Your task to perform on an android device: turn on javascript in the chrome app Image 0: 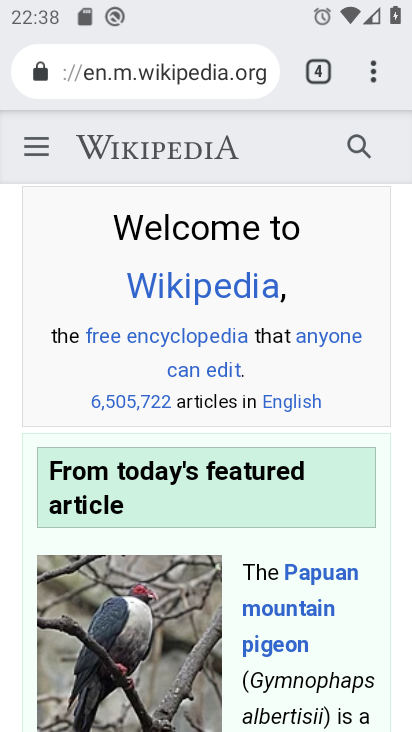
Step 0: click (198, 657)
Your task to perform on an android device: turn on javascript in the chrome app Image 1: 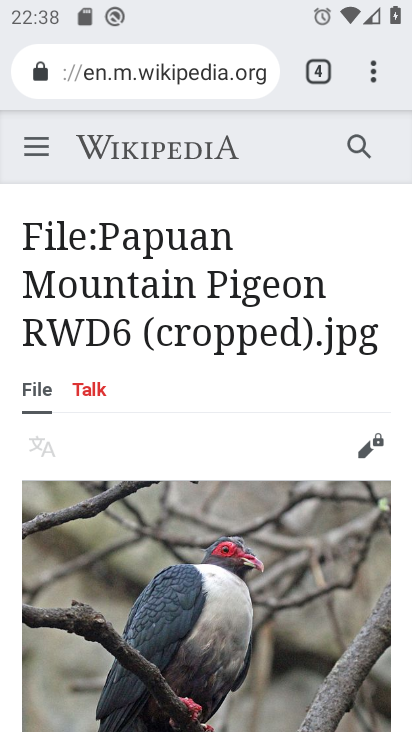
Step 1: press home button
Your task to perform on an android device: turn on javascript in the chrome app Image 2: 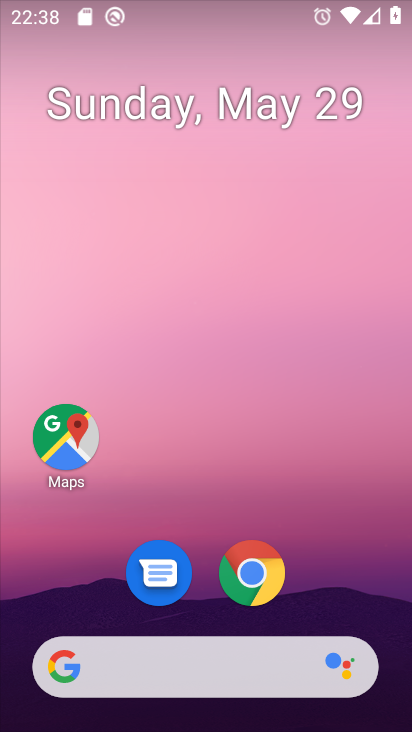
Step 2: click (260, 593)
Your task to perform on an android device: turn on javascript in the chrome app Image 3: 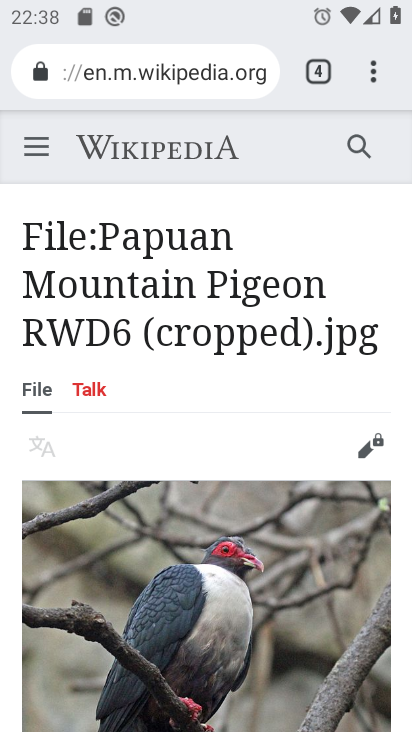
Step 3: click (365, 71)
Your task to perform on an android device: turn on javascript in the chrome app Image 4: 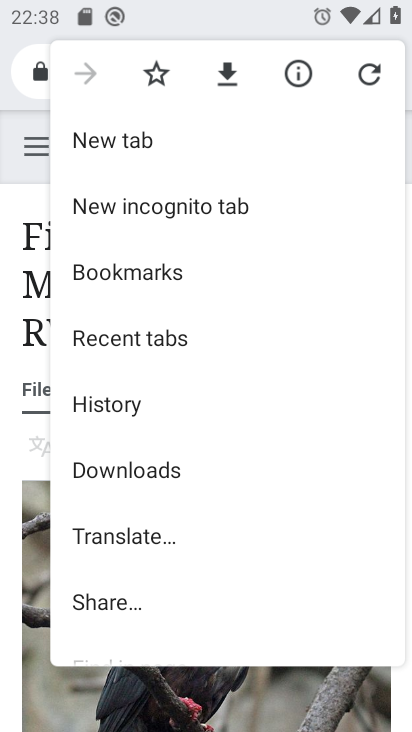
Step 4: drag from (210, 507) to (233, 185)
Your task to perform on an android device: turn on javascript in the chrome app Image 5: 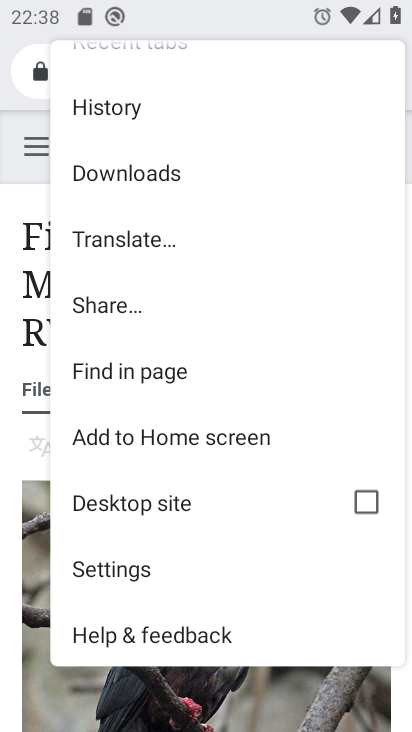
Step 5: click (198, 569)
Your task to perform on an android device: turn on javascript in the chrome app Image 6: 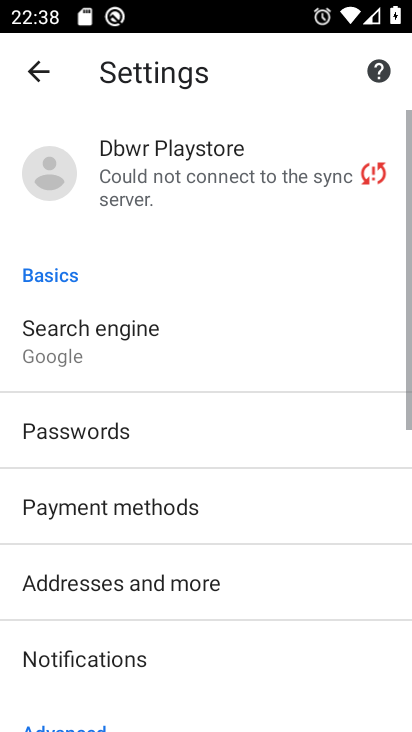
Step 6: drag from (237, 546) to (260, 207)
Your task to perform on an android device: turn on javascript in the chrome app Image 7: 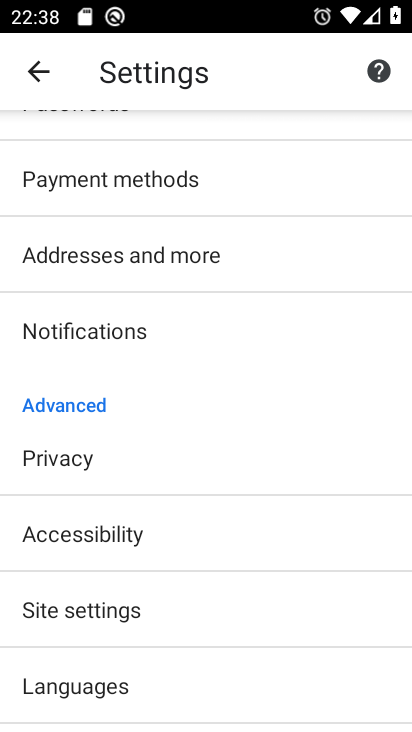
Step 7: click (237, 611)
Your task to perform on an android device: turn on javascript in the chrome app Image 8: 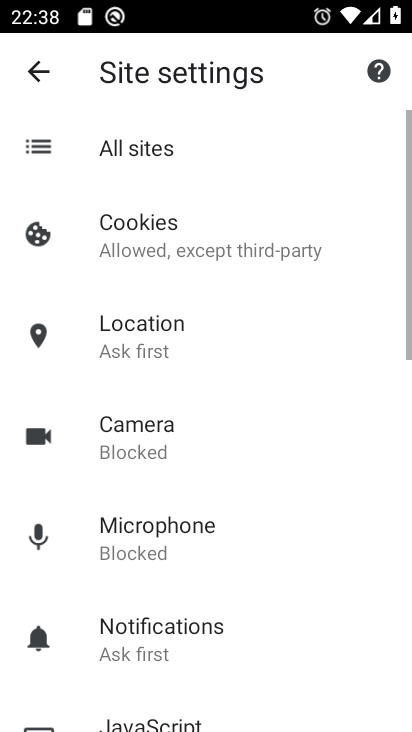
Step 8: drag from (289, 587) to (310, 271)
Your task to perform on an android device: turn on javascript in the chrome app Image 9: 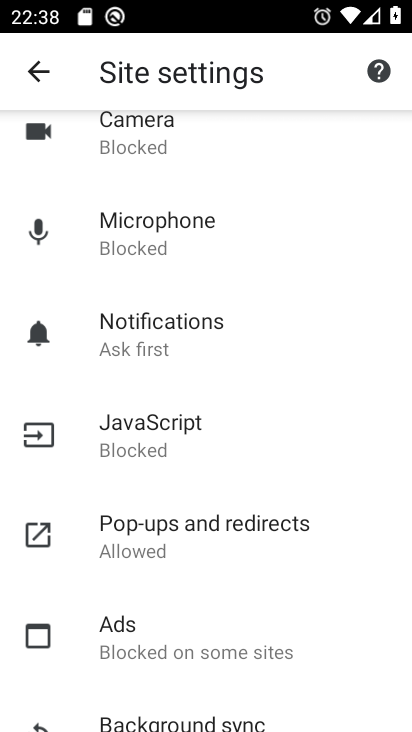
Step 9: click (238, 435)
Your task to perform on an android device: turn on javascript in the chrome app Image 10: 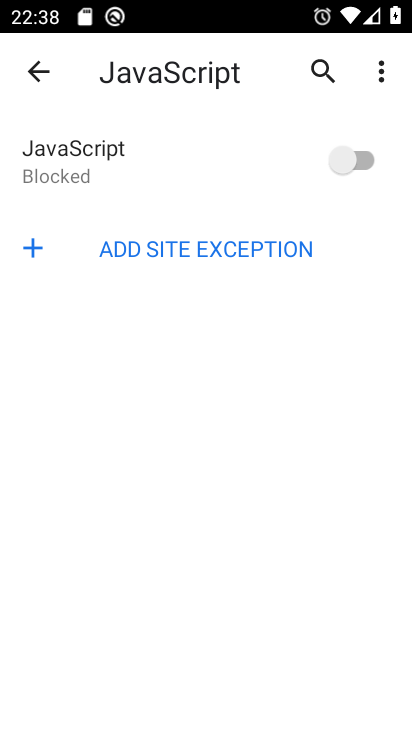
Step 10: click (345, 161)
Your task to perform on an android device: turn on javascript in the chrome app Image 11: 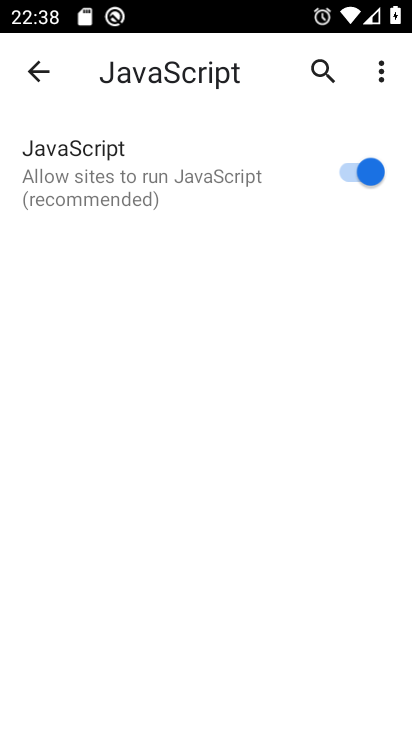
Step 11: task complete